Your task to perform on an android device: Clear the cart on walmart. Image 0: 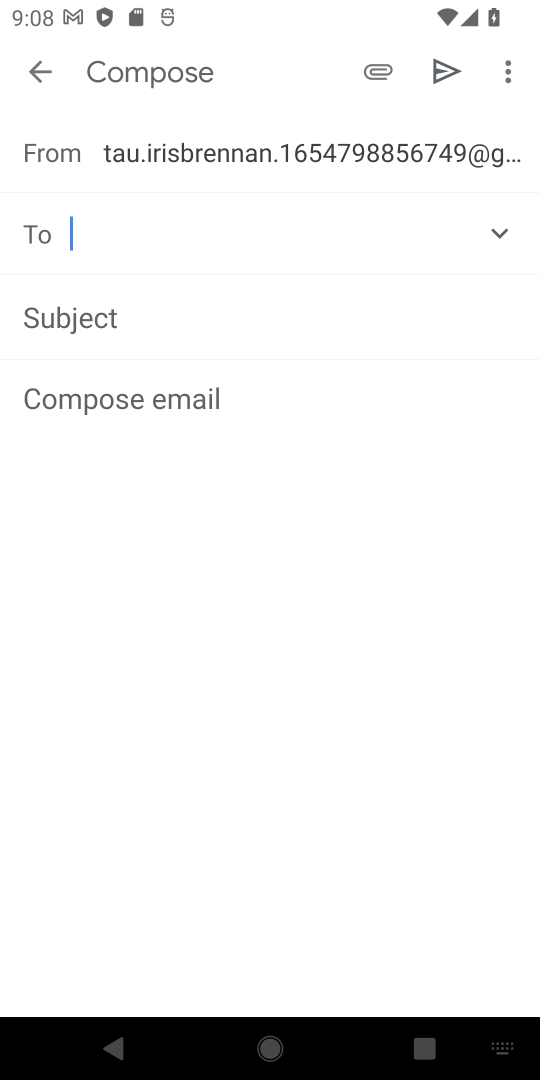
Step 0: press home button
Your task to perform on an android device: Clear the cart on walmart. Image 1: 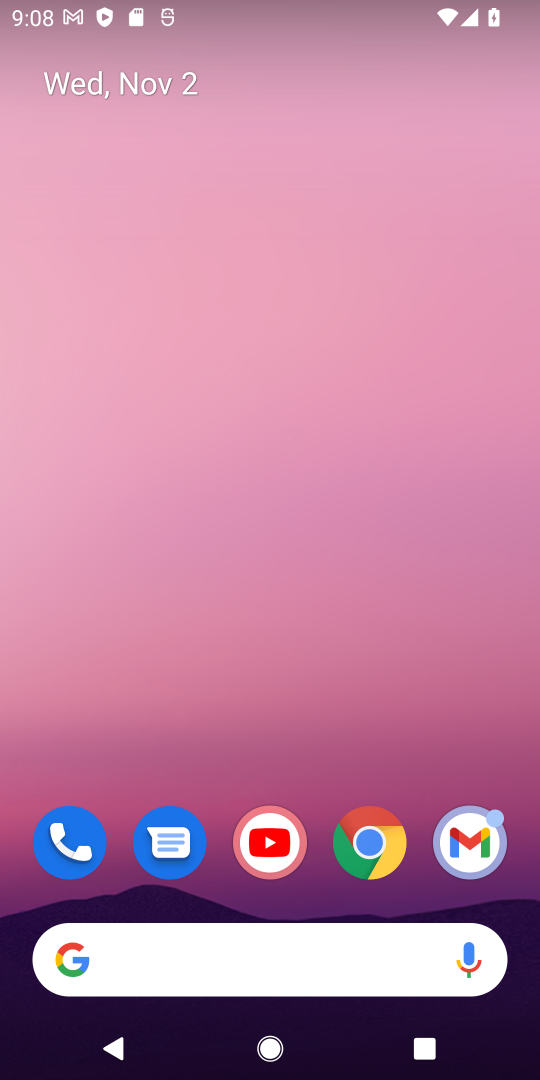
Step 1: drag from (242, 942) to (284, 194)
Your task to perform on an android device: Clear the cart on walmart. Image 2: 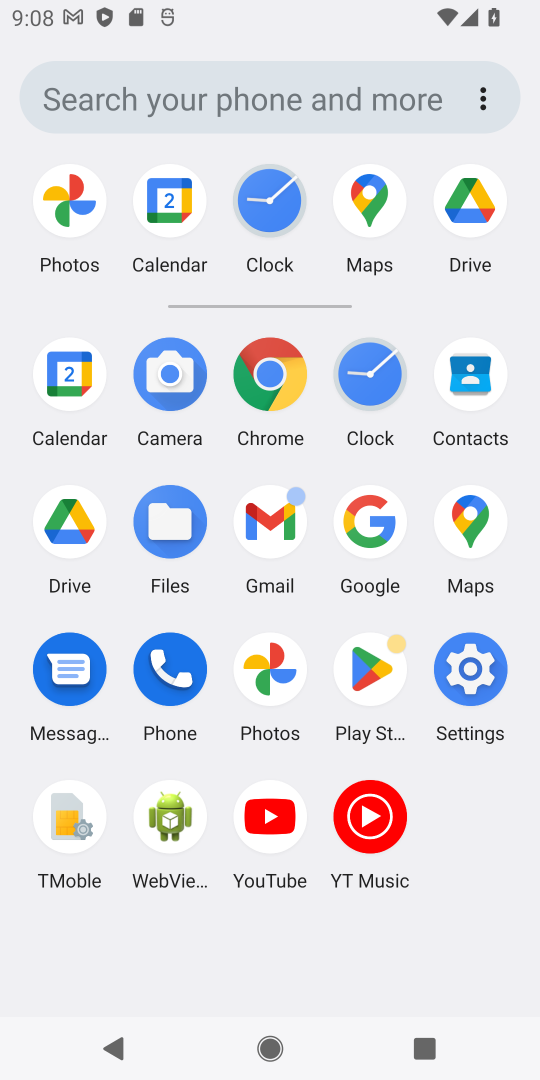
Step 2: drag from (306, 894) to (310, 506)
Your task to perform on an android device: Clear the cart on walmart. Image 3: 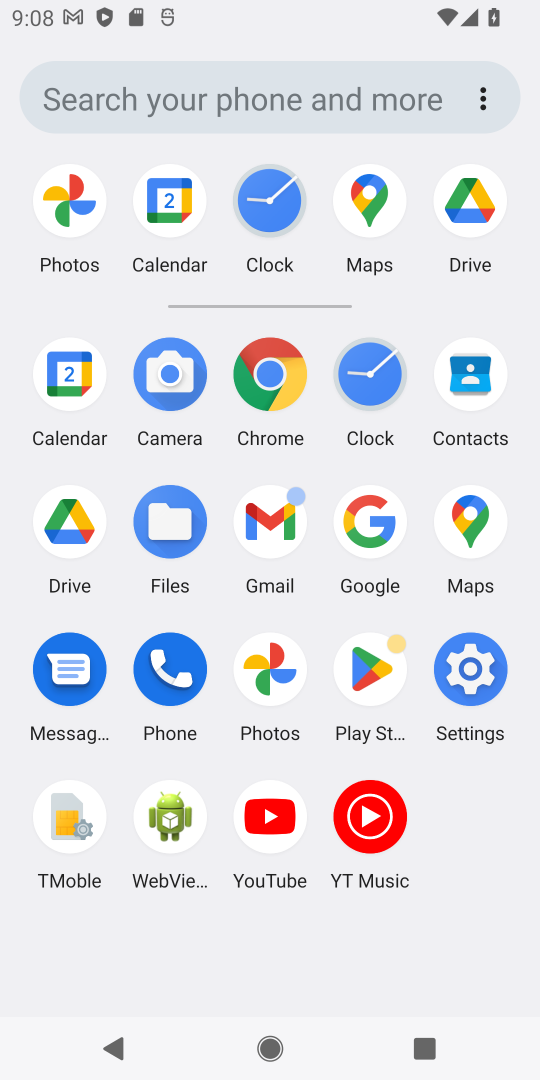
Step 3: click (357, 505)
Your task to perform on an android device: Clear the cart on walmart. Image 4: 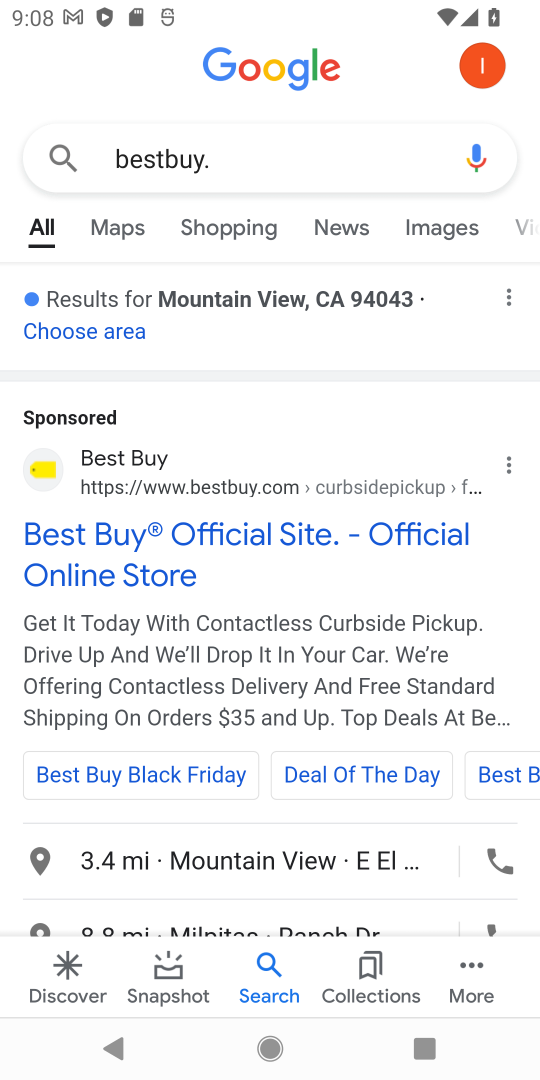
Step 4: click (352, 519)
Your task to perform on an android device: Clear the cart on walmart. Image 5: 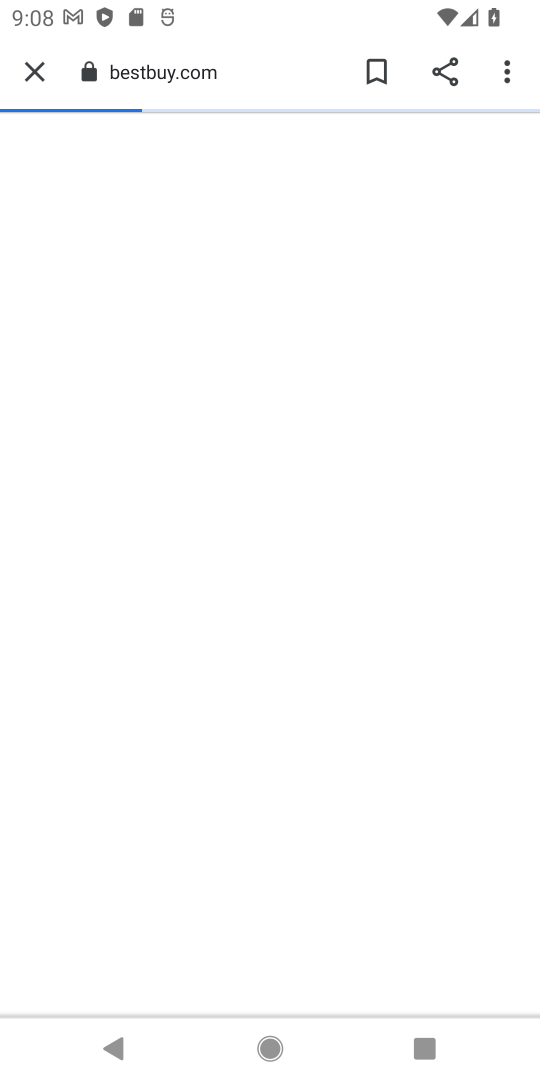
Step 5: click (196, 142)
Your task to perform on an android device: Clear the cart on walmart. Image 6: 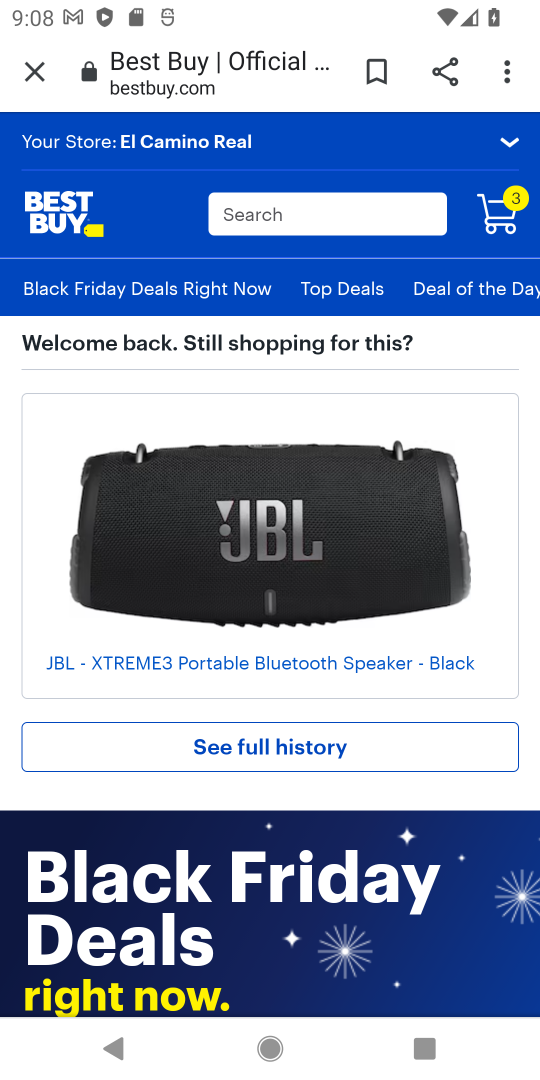
Step 6: press back button
Your task to perform on an android device: Clear the cart on walmart. Image 7: 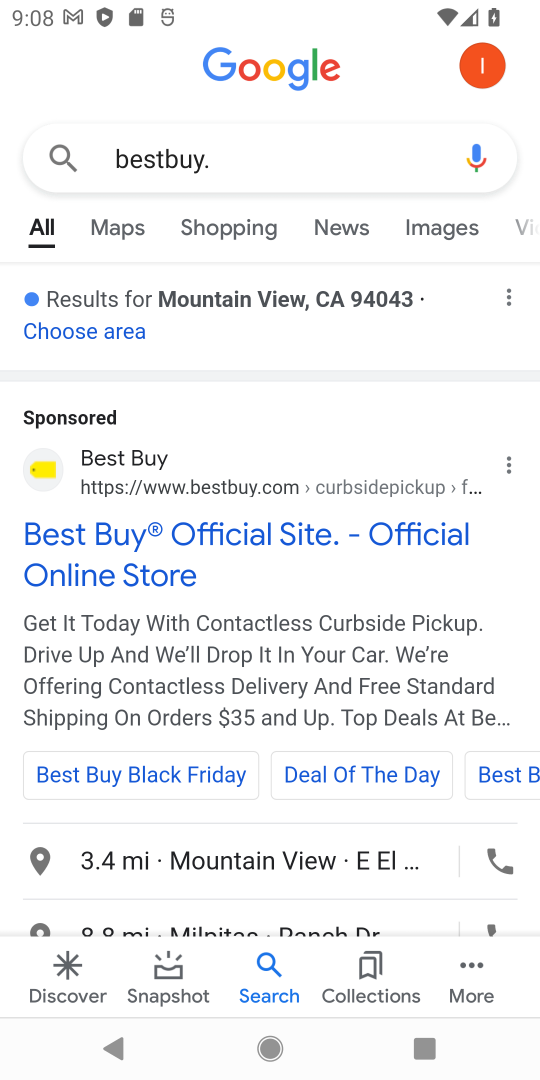
Step 7: click (199, 158)
Your task to perform on an android device: Clear the cart on walmart. Image 8: 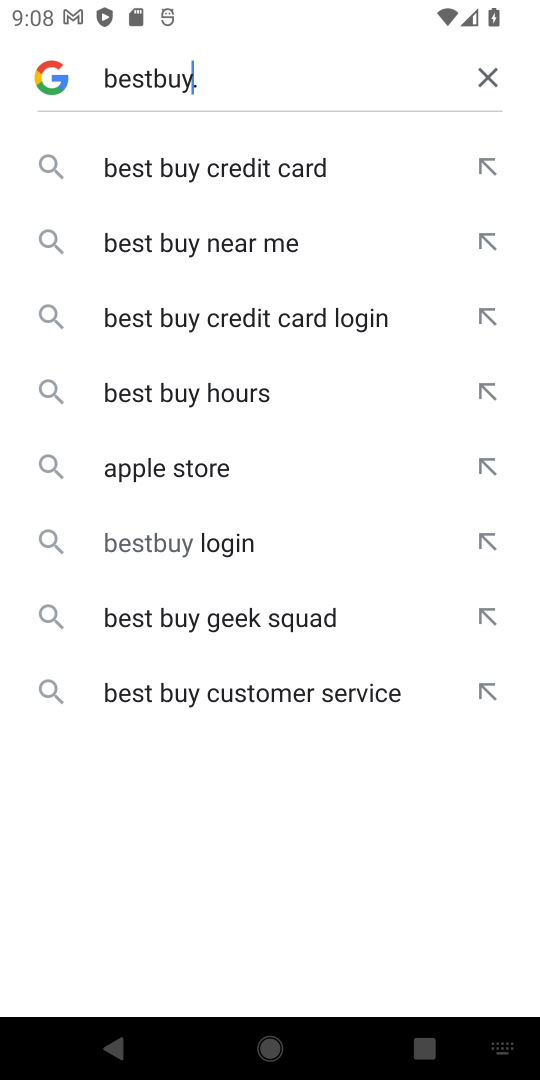
Step 8: click (496, 65)
Your task to perform on an android device: Clear the cart on walmart. Image 9: 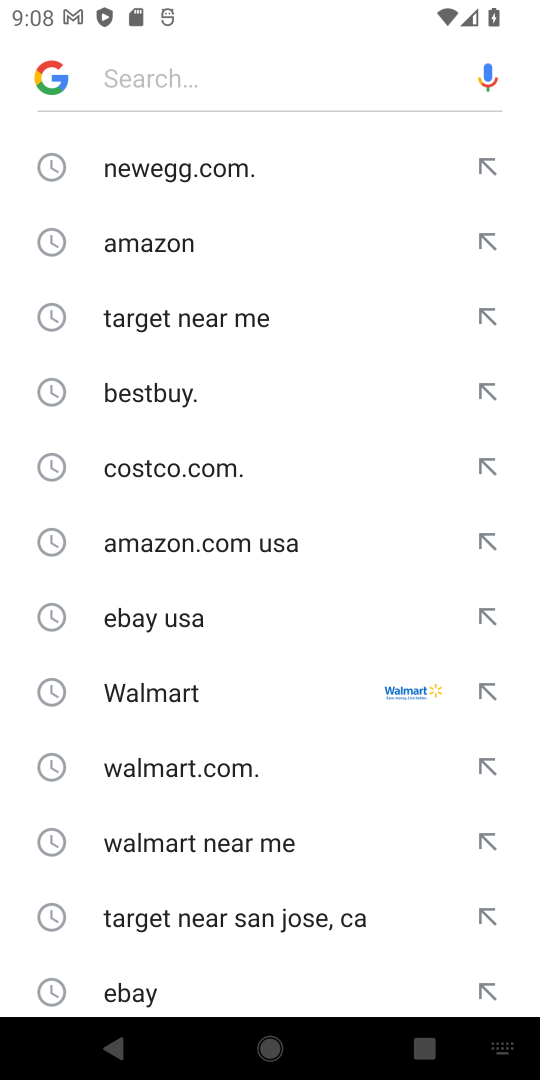
Step 9: click (166, 693)
Your task to perform on an android device: Clear the cart on walmart. Image 10: 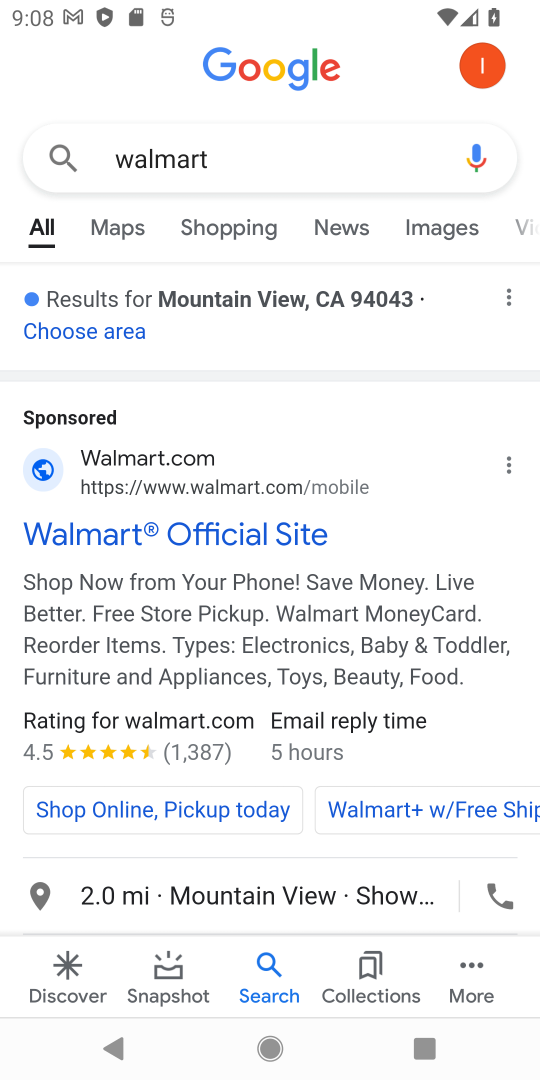
Step 10: drag from (143, 809) to (199, 380)
Your task to perform on an android device: Clear the cart on walmart. Image 11: 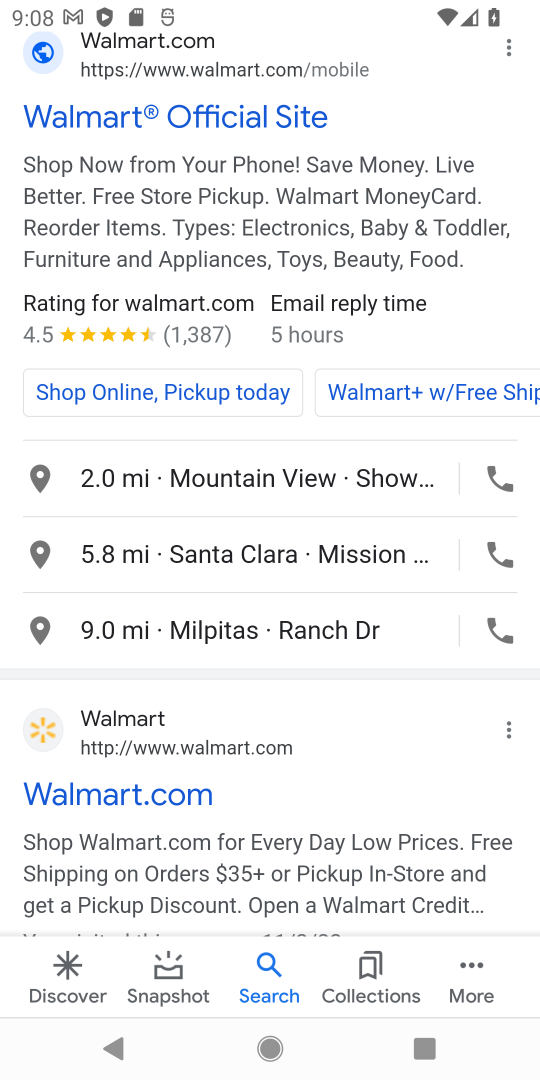
Step 11: drag from (105, 852) to (124, 530)
Your task to perform on an android device: Clear the cart on walmart. Image 12: 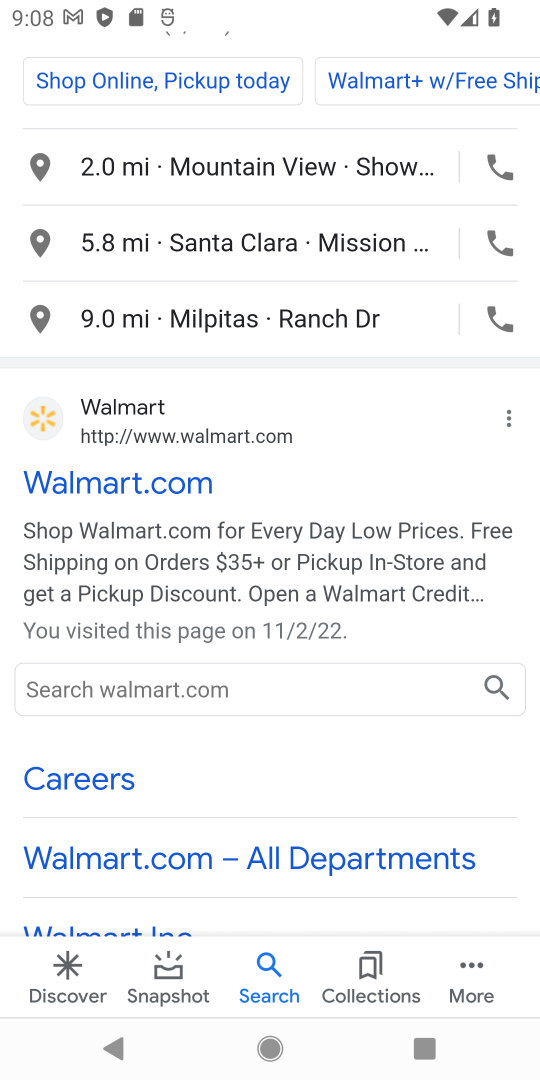
Step 12: click (47, 766)
Your task to perform on an android device: Clear the cart on walmart. Image 13: 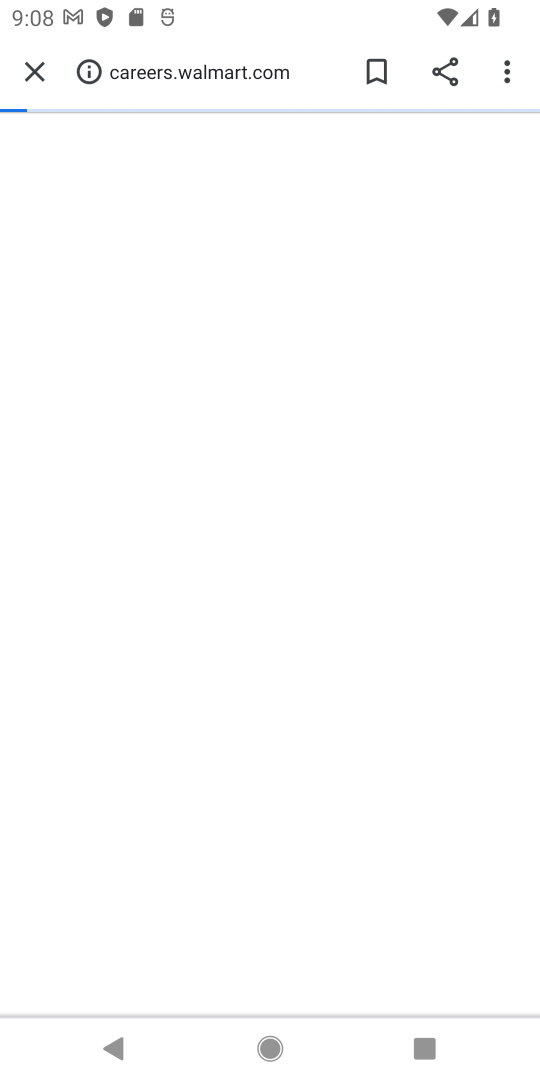
Step 13: click (31, 398)
Your task to perform on an android device: Clear the cart on walmart. Image 14: 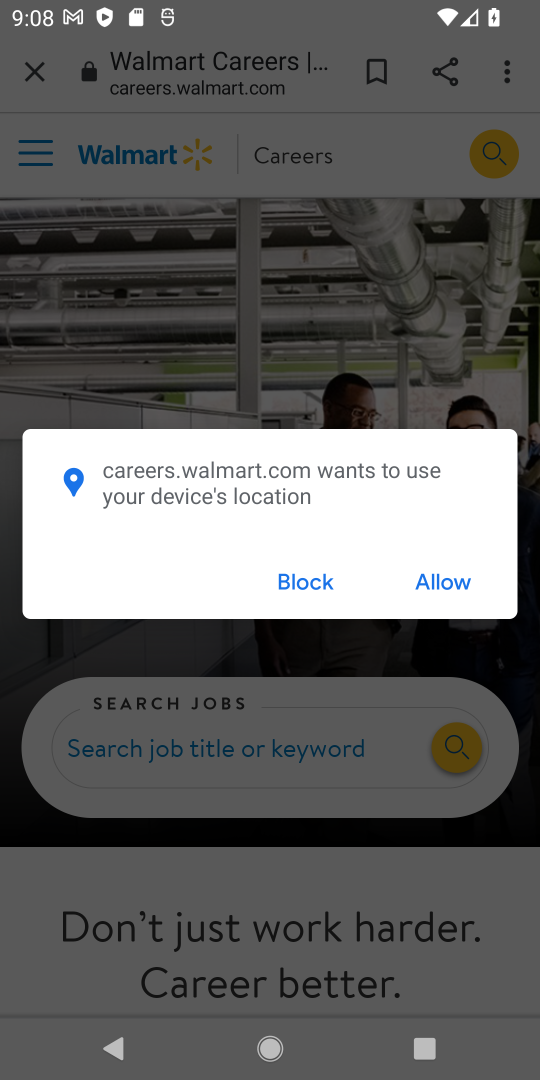
Step 14: press back button
Your task to perform on an android device: Clear the cart on walmart. Image 15: 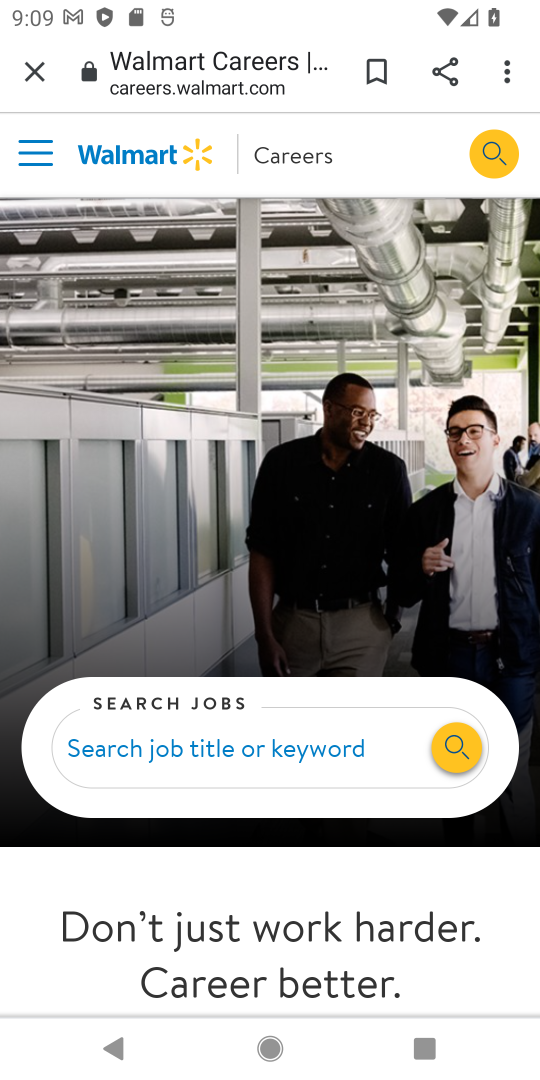
Step 15: press back button
Your task to perform on an android device: Clear the cart on walmart. Image 16: 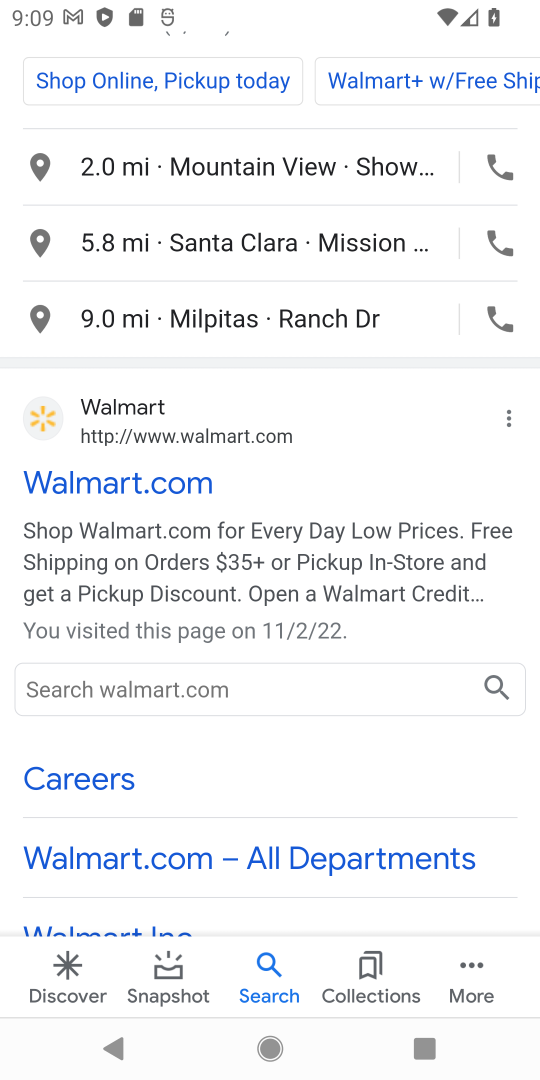
Step 16: click (33, 409)
Your task to perform on an android device: Clear the cart on walmart. Image 17: 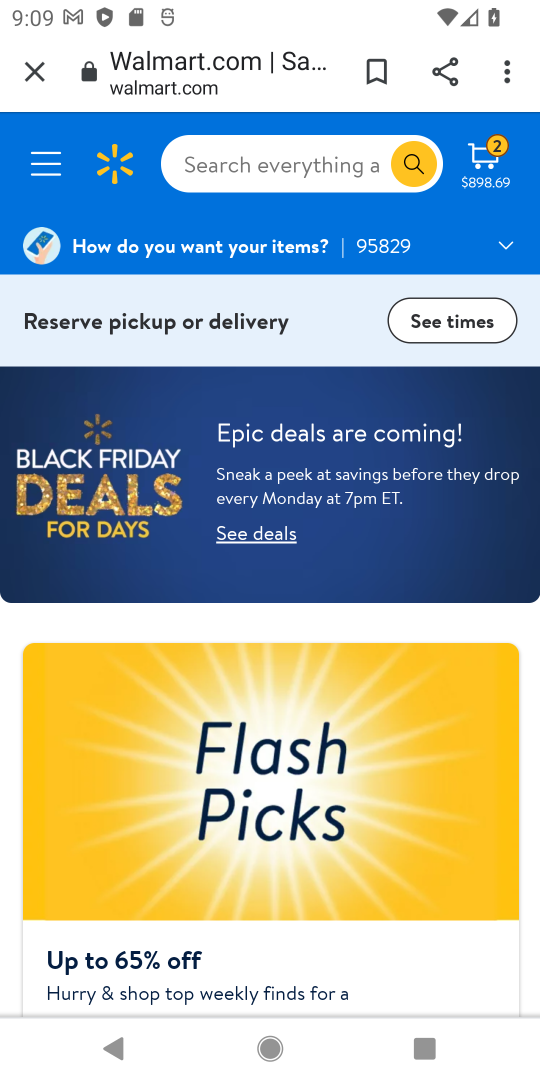
Step 17: click (484, 147)
Your task to perform on an android device: Clear the cart on walmart. Image 18: 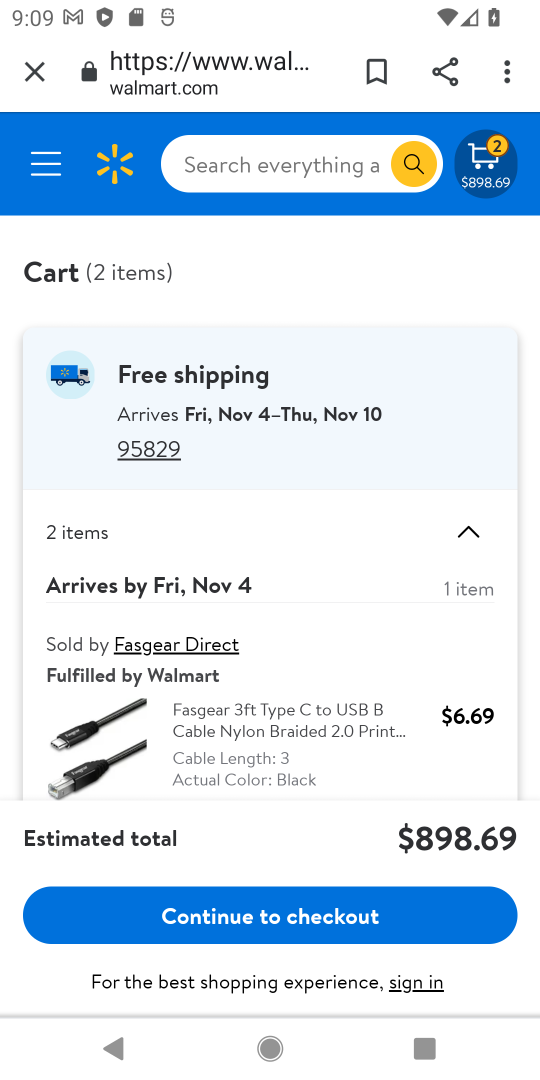
Step 18: drag from (400, 844) to (369, 578)
Your task to perform on an android device: Clear the cart on walmart. Image 19: 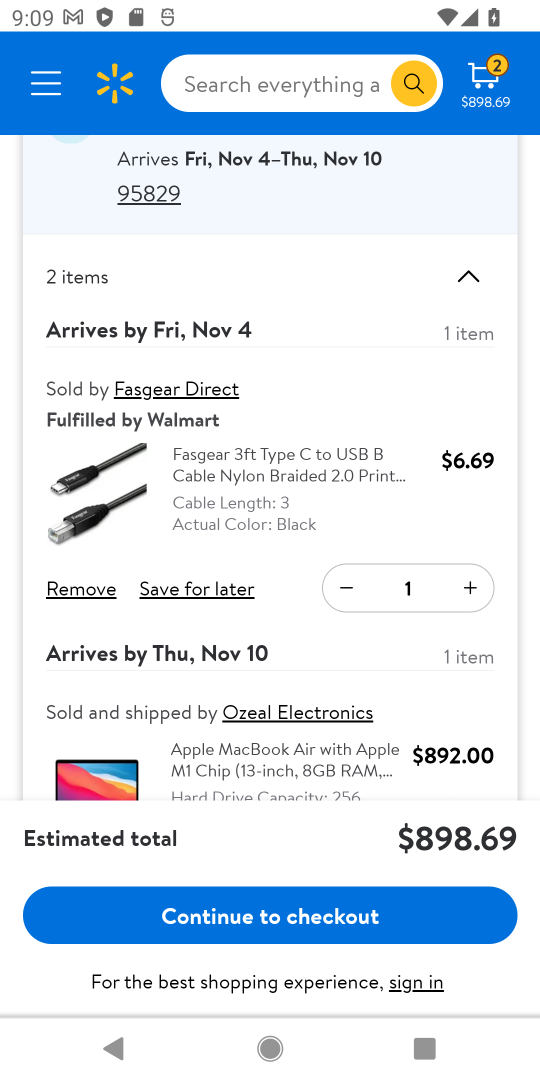
Step 19: click (47, 580)
Your task to perform on an android device: Clear the cart on walmart. Image 20: 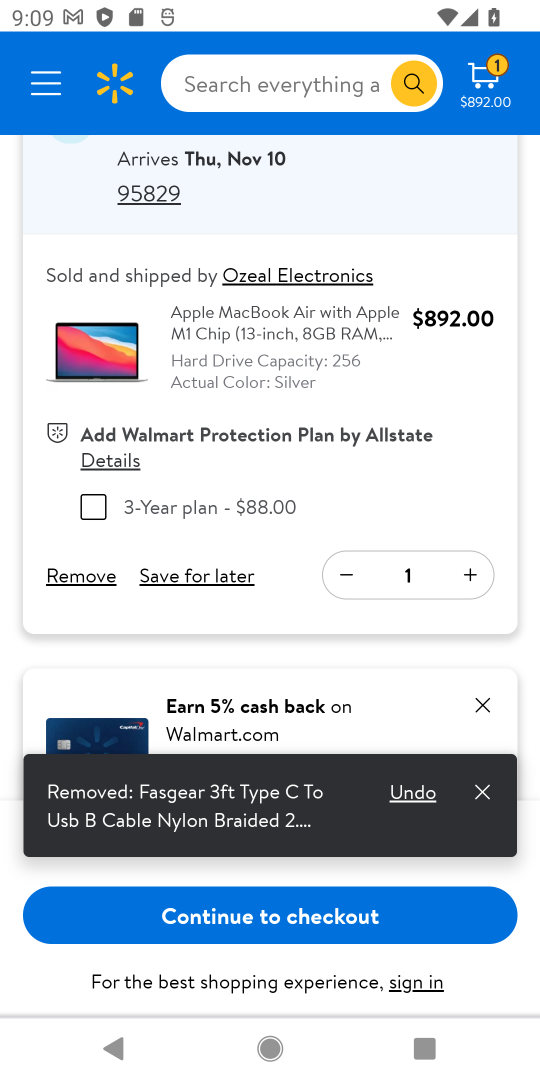
Step 20: drag from (148, 750) to (151, 528)
Your task to perform on an android device: Clear the cart on walmart. Image 21: 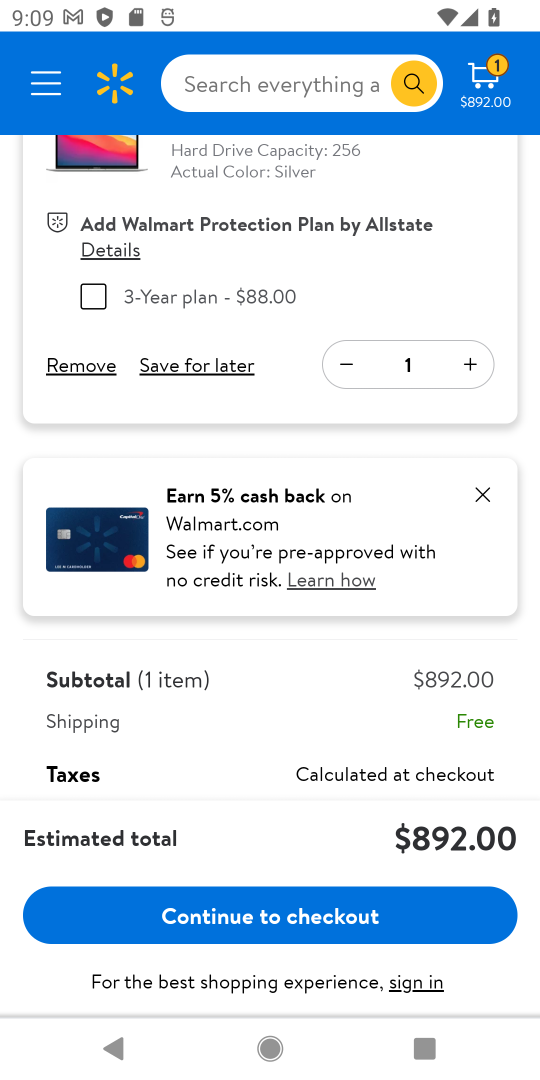
Step 21: click (74, 487)
Your task to perform on an android device: Clear the cart on walmart. Image 22: 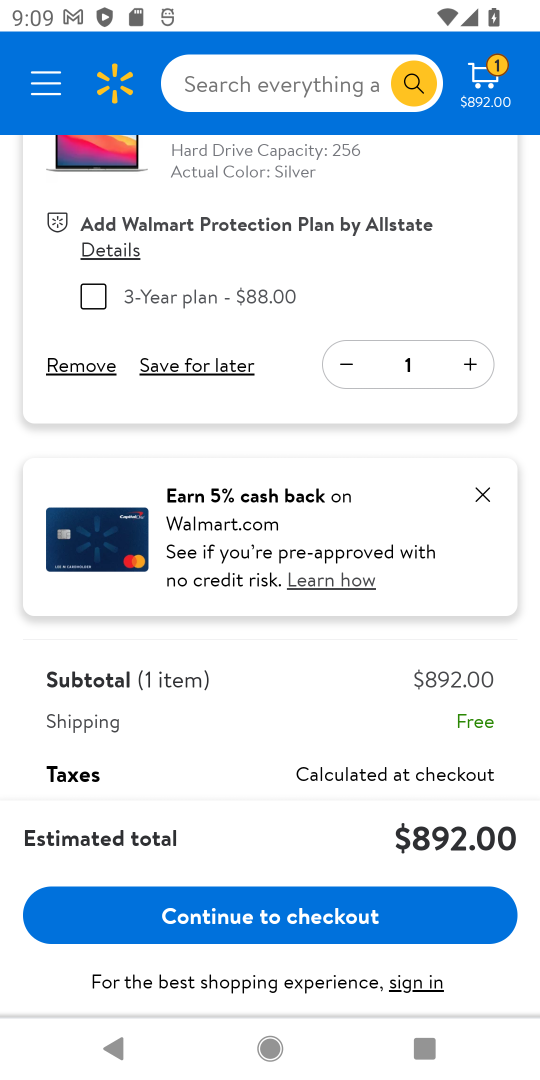
Step 22: click (67, 373)
Your task to perform on an android device: Clear the cart on walmart. Image 23: 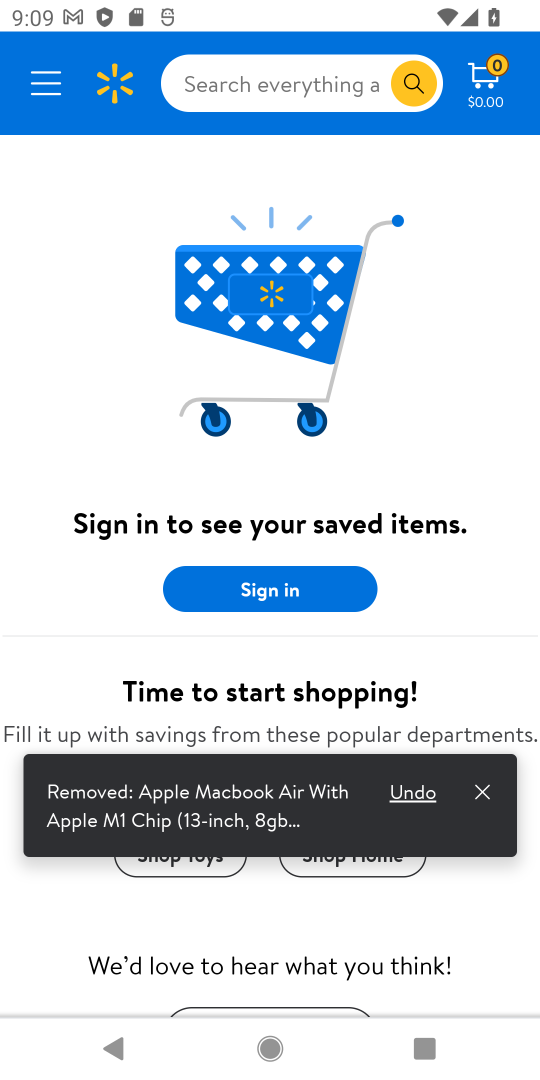
Step 23: click (70, 371)
Your task to perform on an android device: Clear the cart on walmart. Image 24: 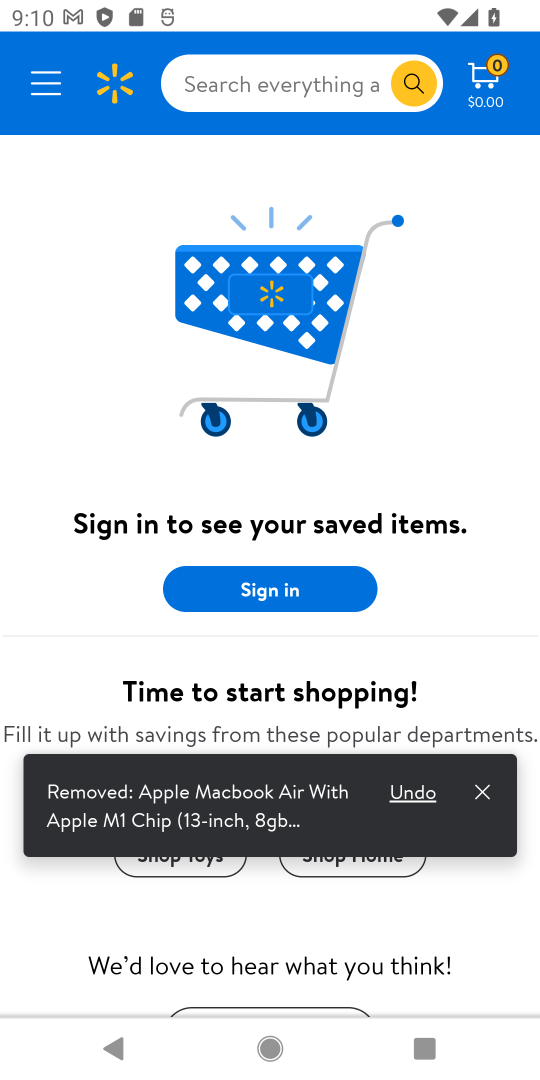
Step 24: task complete